Your task to perform on an android device: Open Android settings Image 0: 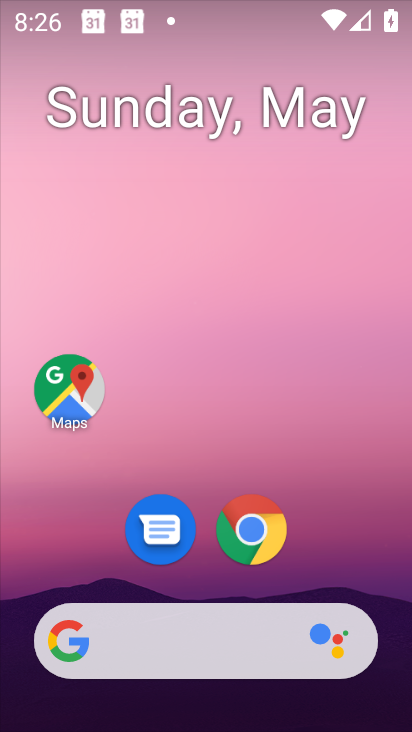
Step 0: drag from (327, 541) to (163, 0)
Your task to perform on an android device: Open Android settings Image 1: 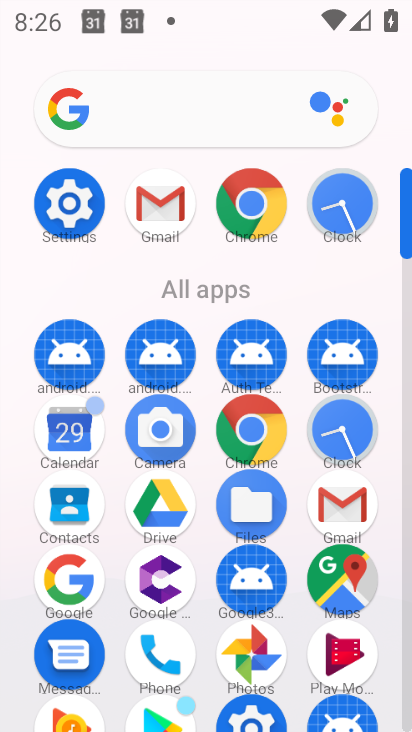
Step 1: click (62, 249)
Your task to perform on an android device: Open Android settings Image 2: 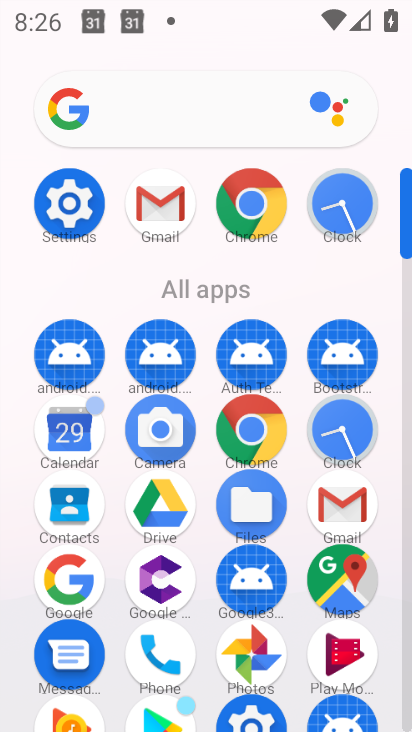
Step 2: click (78, 232)
Your task to perform on an android device: Open Android settings Image 3: 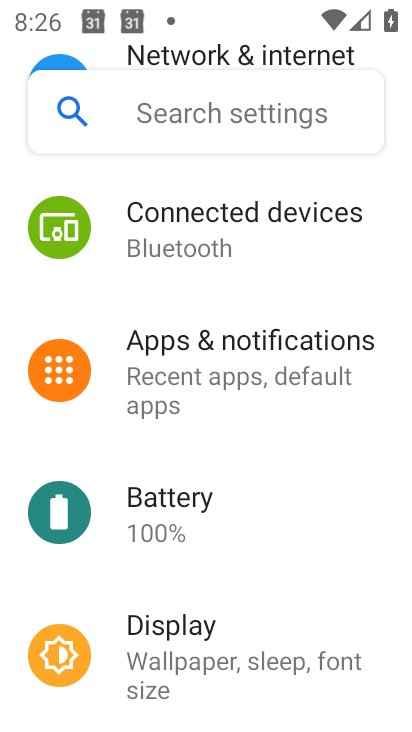
Step 3: task complete